Your task to perform on an android device: check google app version Image 0: 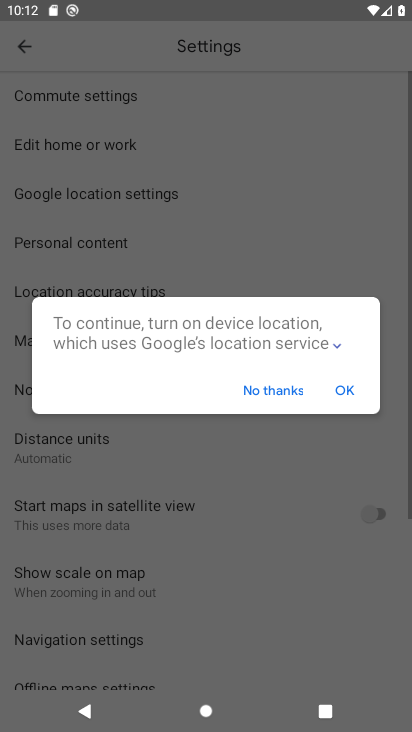
Step 0: press home button
Your task to perform on an android device: check google app version Image 1: 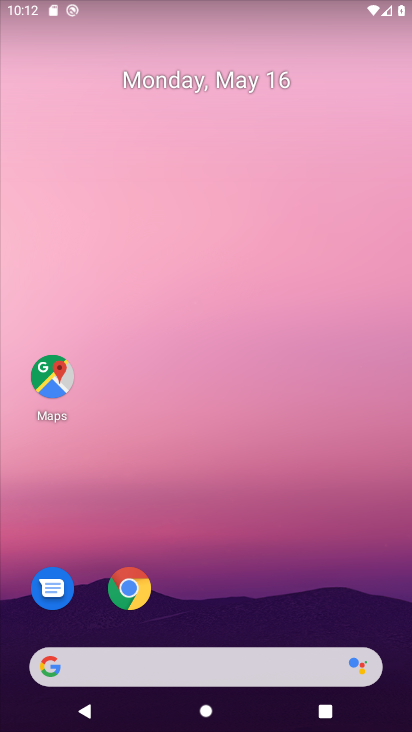
Step 1: drag from (210, 627) to (233, 89)
Your task to perform on an android device: check google app version Image 2: 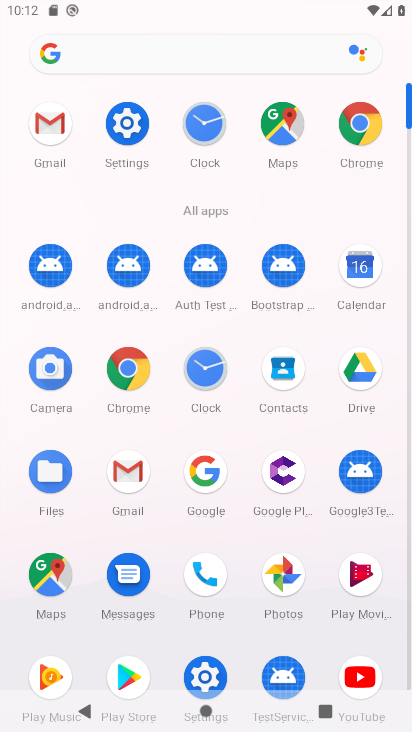
Step 2: click (204, 465)
Your task to perform on an android device: check google app version Image 3: 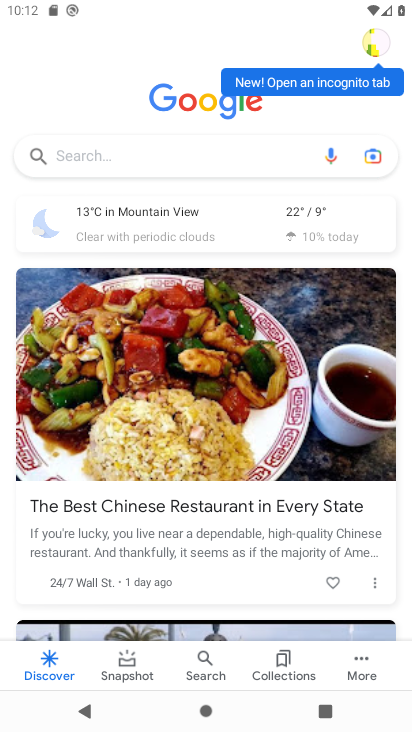
Step 3: click (359, 660)
Your task to perform on an android device: check google app version Image 4: 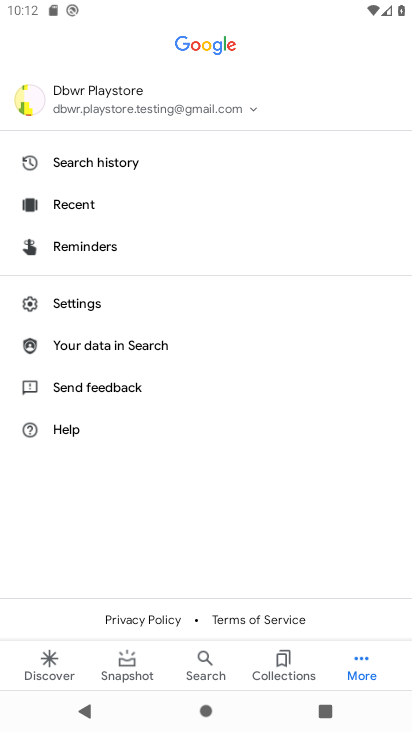
Step 4: click (102, 303)
Your task to perform on an android device: check google app version Image 5: 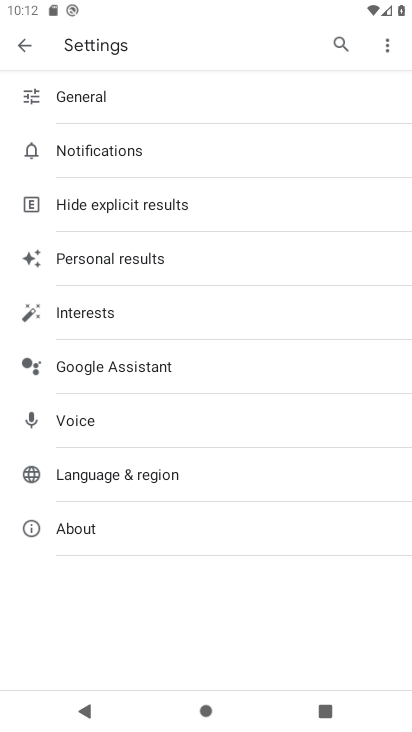
Step 5: click (111, 522)
Your task to perform on an android device: check google app version Image 6: 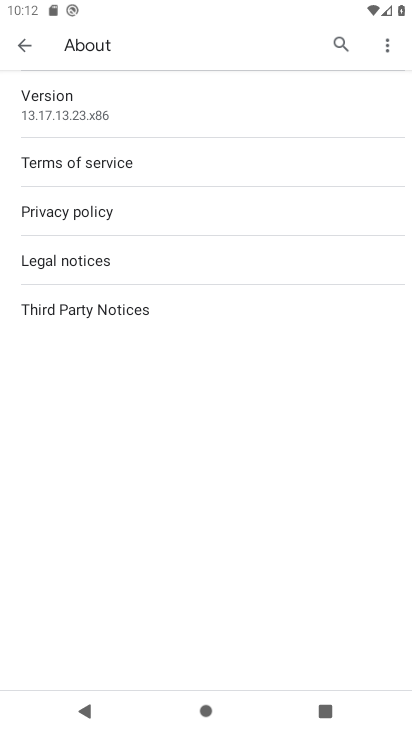
Step 6: task complete